Your task to perform on an android device: open device folders in google photos Image 0: 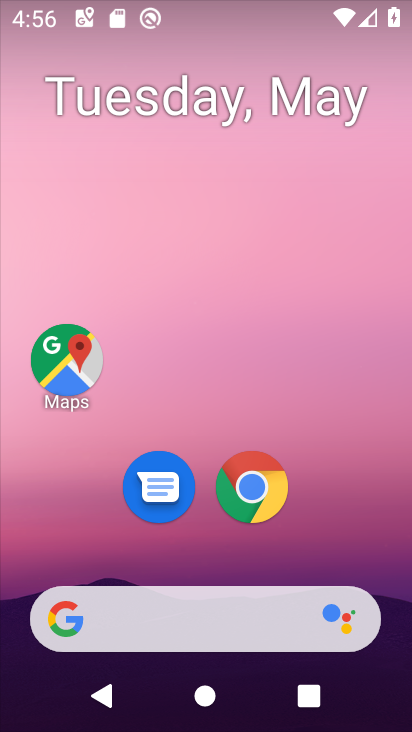
Step 0: drag from (337, 548) to (340, 67)
Your task to perform on an android device: open device folders in google photos Image 1: 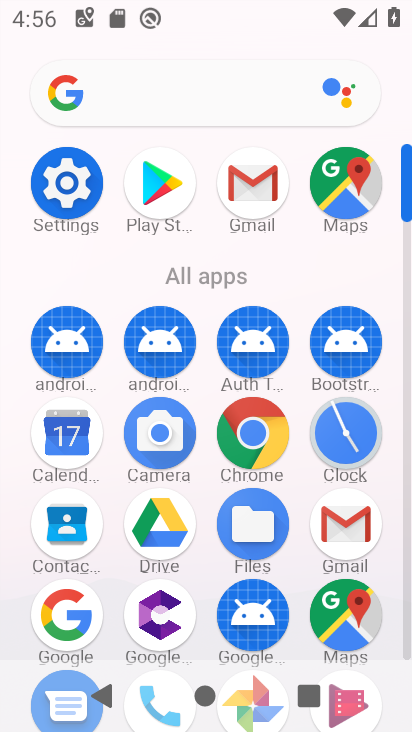
Step 1: click (400, 613)
Your task to perform on an android device: open device folders in google photos Image 2: 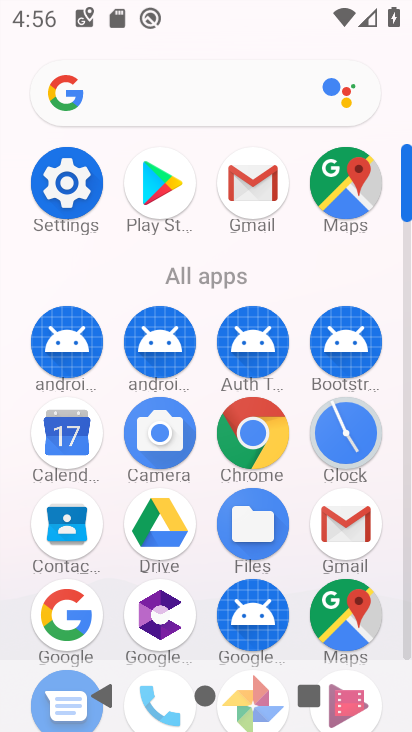
Step 2: click (403, 623)
Your task to perform on an android device: open device folders in google photos Image 3: 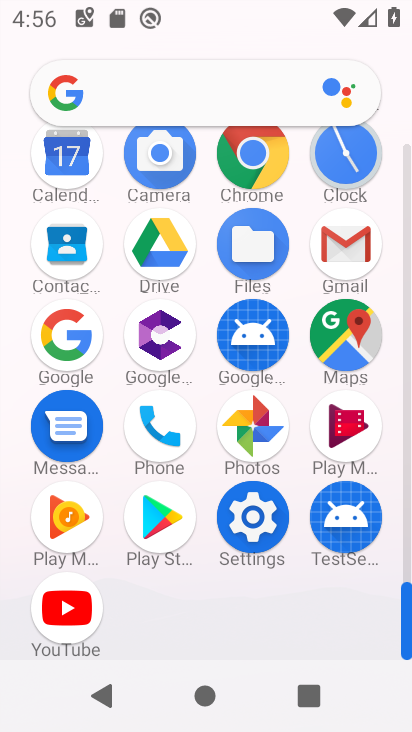
Step 3: click (243, 438)
Your task to perform on an android device: open device folders in google photos Image 4: 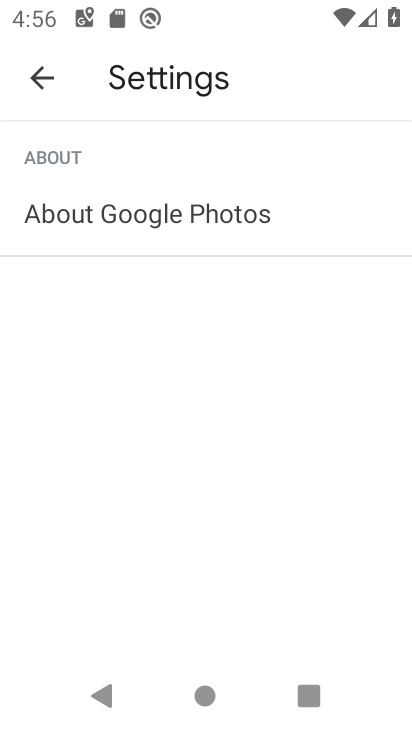
Step 4: click (45, 83)
Your task to perform on an android device: open device folders in google photos Image 5: 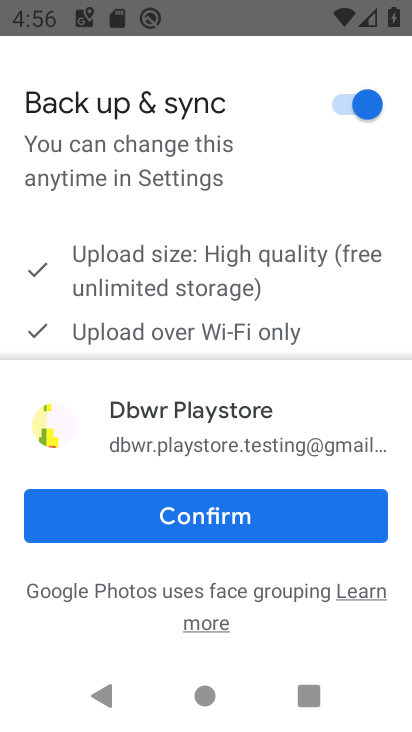
Step 5: click (156, 499)
Your task to perform on an android device: open device folders in google photos Image 6: 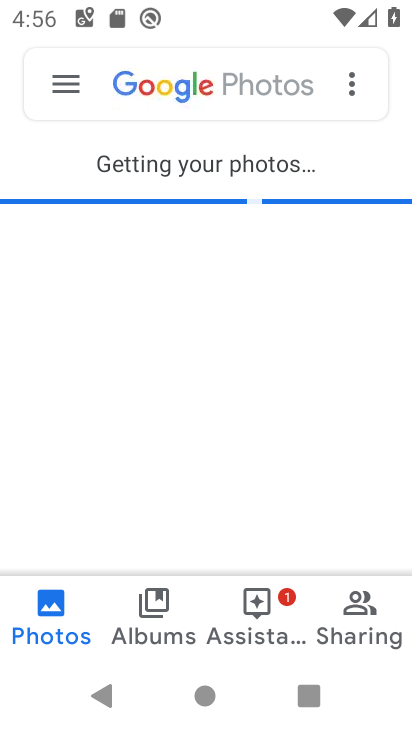
Step 6: click (77, 95)
Your task to perform on an android device: open device folders in google photos Image 7: 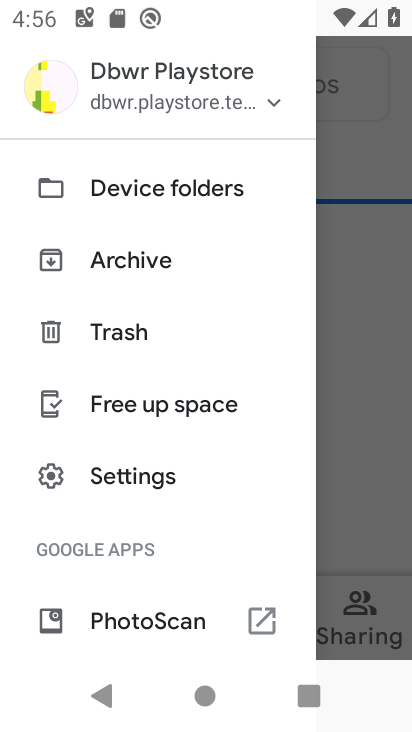
Step 7: click (98, 203)
Your task to perform on an android device: open device folders in google photos Image 8: 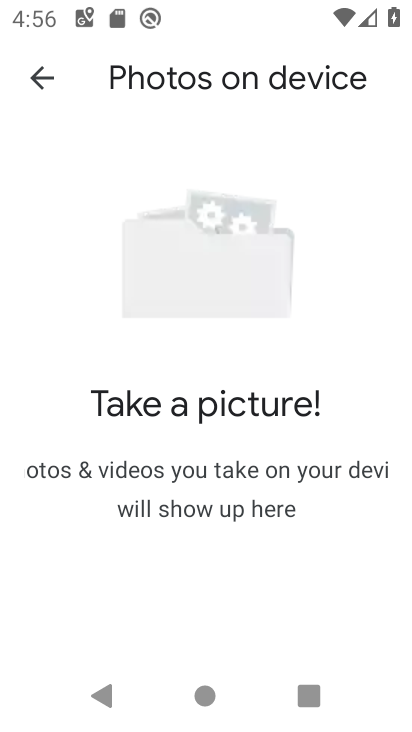
Step 8: task complete